Your task to perform on an android device: delete the emails in spam in the gmail app Image 0: 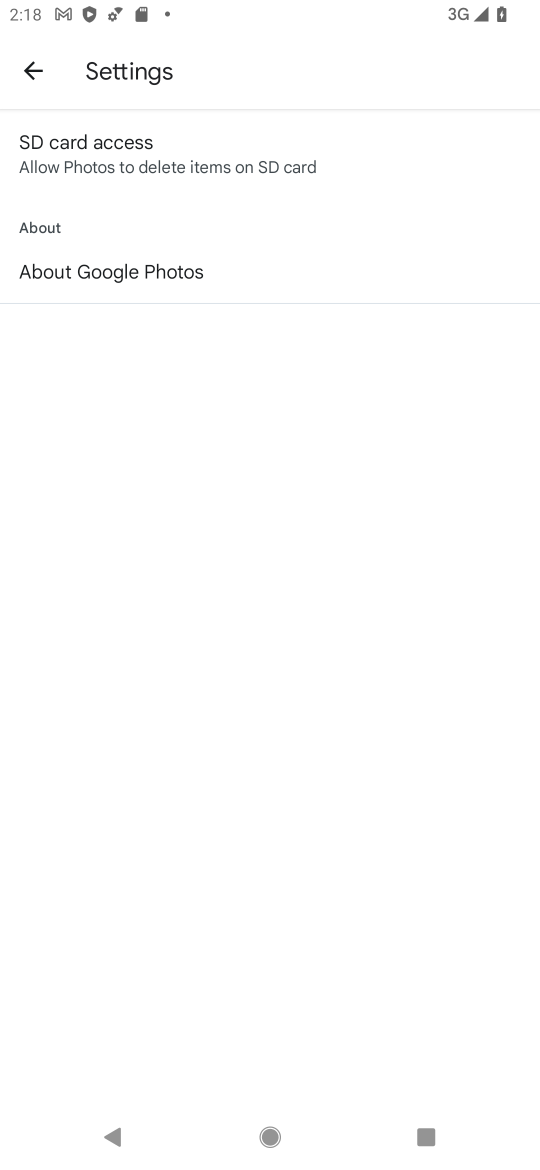
Step 0: press home button
Your task to perform on an android device: delete the emails in spam in the gmail app Image 1: 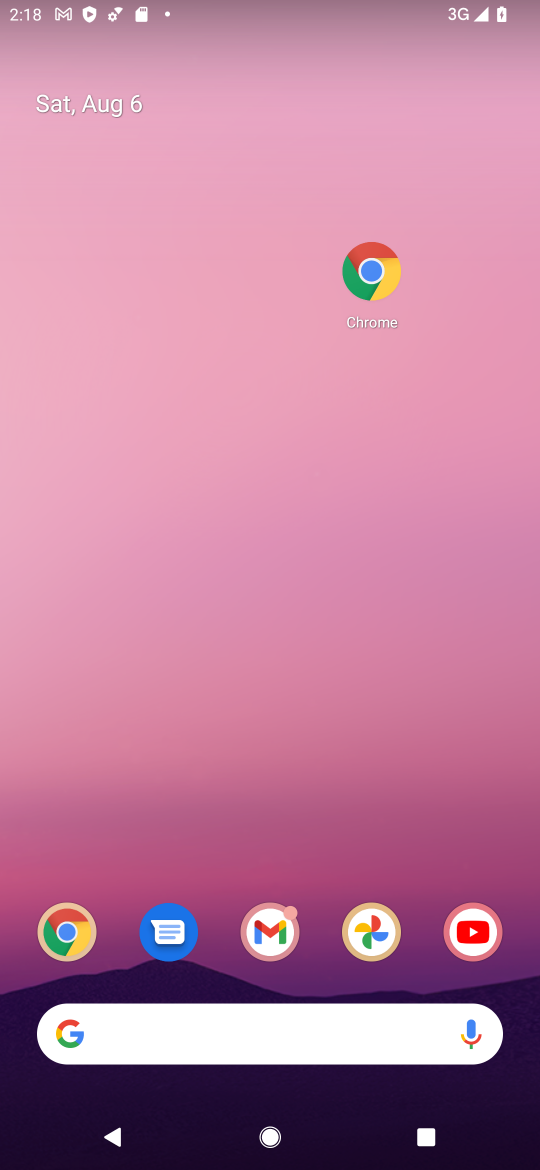
Step 1: click (257, 921)
Your task to perform on an android device: delete the emails in spam in the gmail app Image 2: 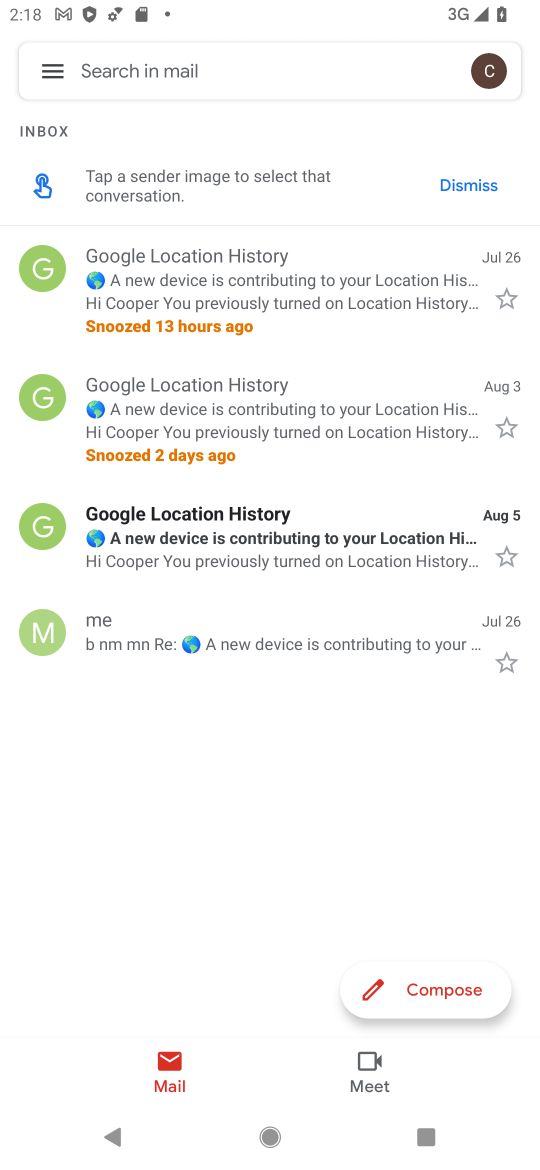
Step 2: click (24, 272)
Your task to perform on an android device: delete the emails in spam in the gmail app Image 3: 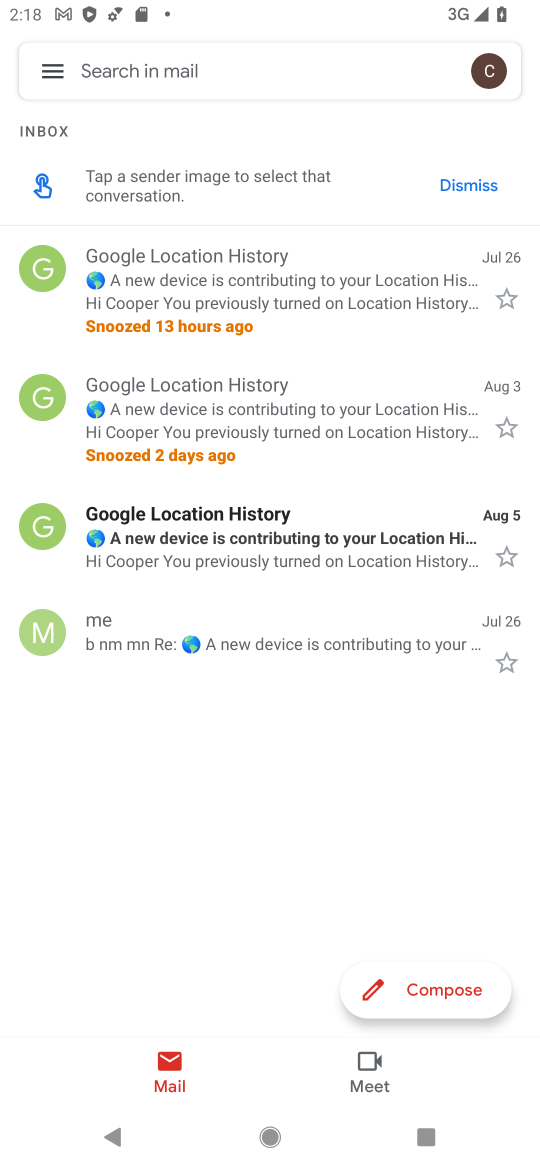
Step 3: click (41, 60)
Your task to perform on an android device: delete the emails in spam in the gmail app Image 4: 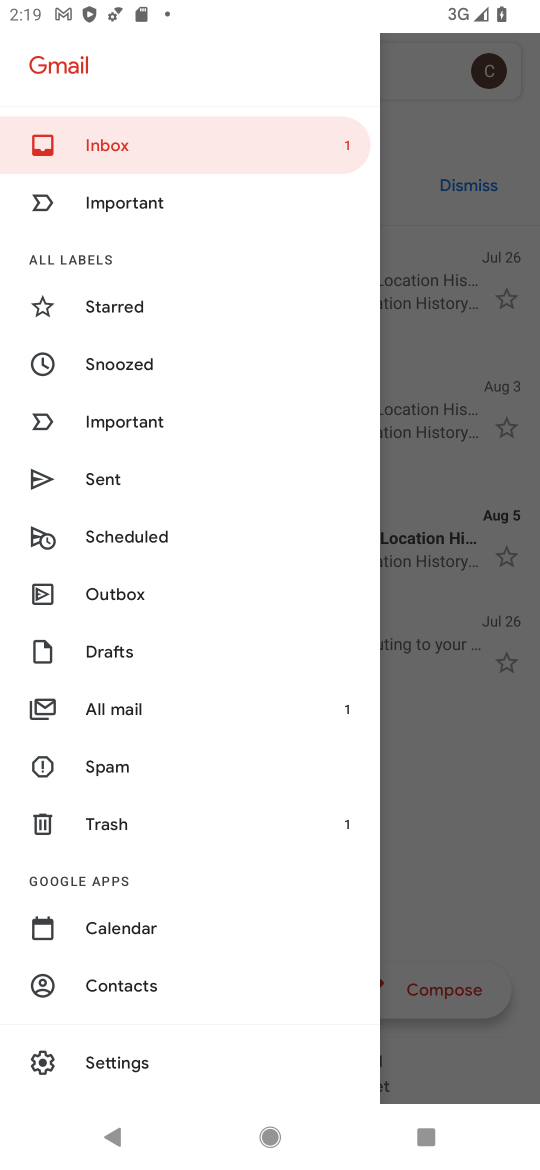
Step 4: click (92, 759)
Your task to perform on an android device: delete the emails in spam in the gmail app Image 5: 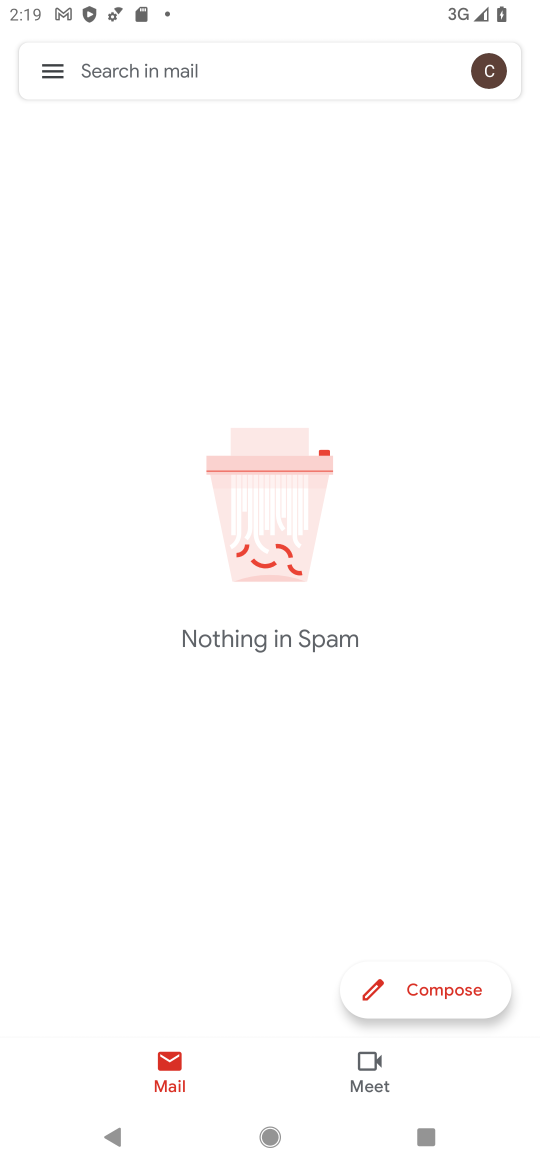
Step 5: task complete